Your task to perform on an android device: Go to Reddit.com Image 0: 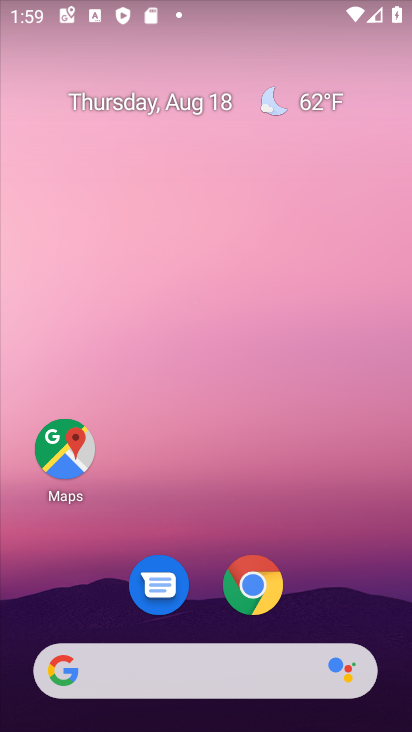
Step 0: click (269, 679)
Your task to perform on an android device: Go to Reddit.com Image 1: 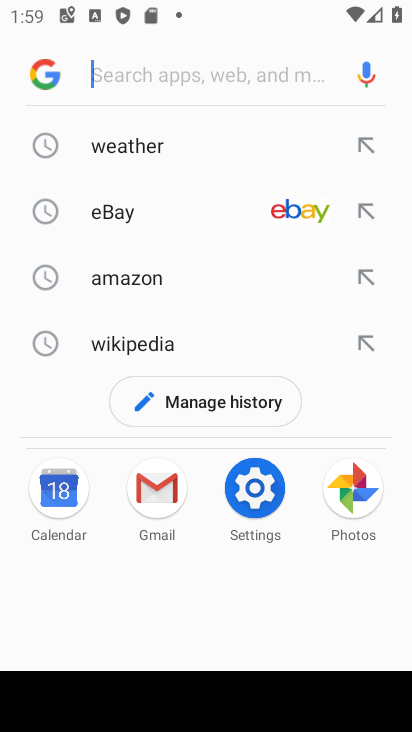
Step 1: type "reddit.com"
Your task to perform on an android device: Go to Reddit.com Image 2: 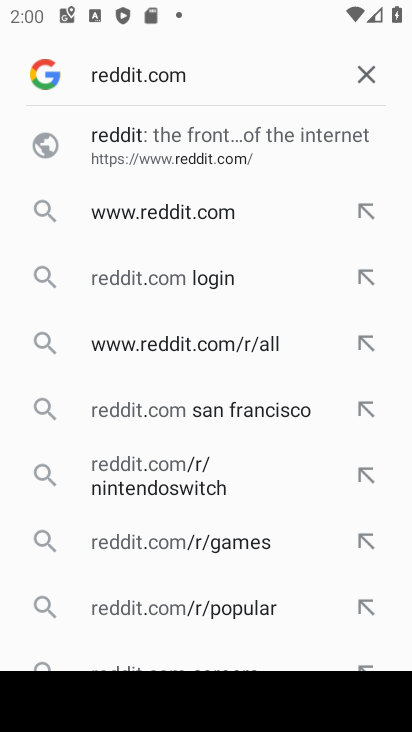
Step 2: click (207, 149)
Your task to perform on an android device: Go to Reddit.com Image 3: 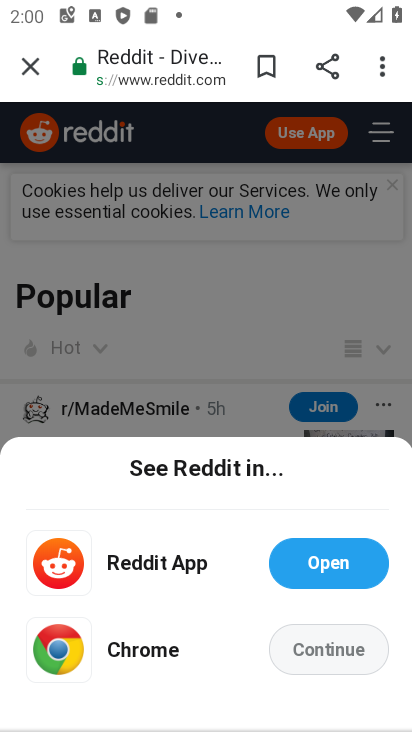
Step 3: click (348, 646)
Your task to perform on an android device: Go to Reddit.com Image 4: 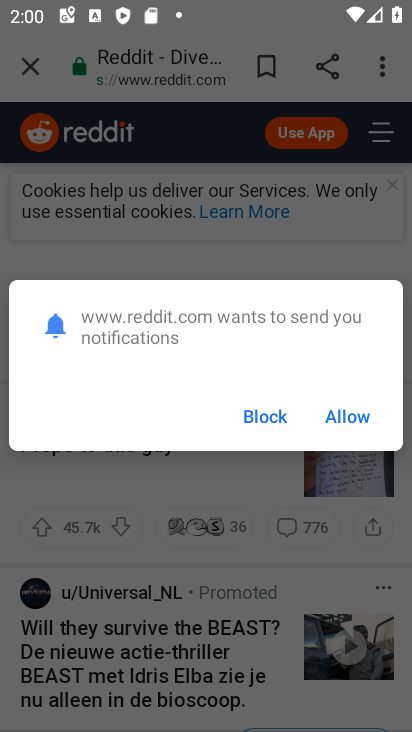
Step 4: click (365, 413)
Your task to perform on an android device: Go to Reddit.com Image 5: 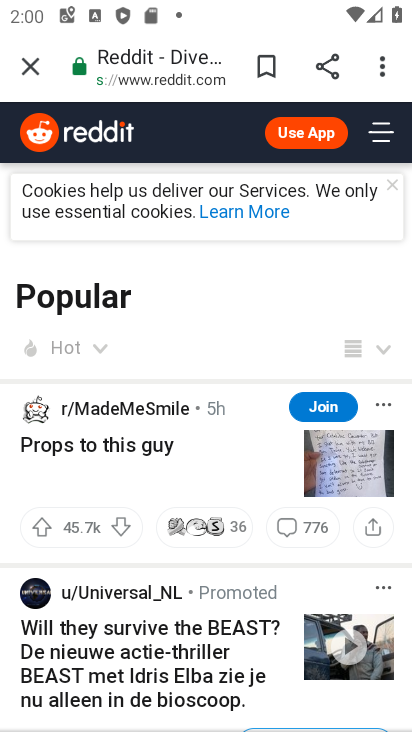
Step 5: task complete